Your task to perform on an android device: Search for Mexican restaurants on Maps Image 0: 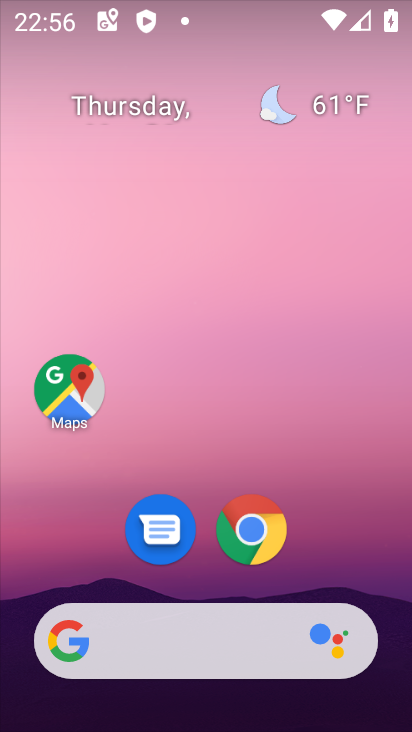
Step 0: drag from (348, 569) to (350, 58)
Your task to perform on an android device: Search for Mexican restaurants on Maps Image 1: 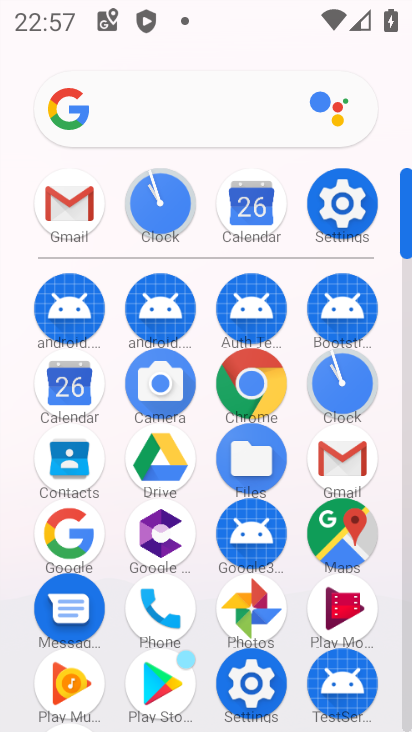
Step 1: click (336, 542)
Your task to perform on an android device: Search for Mexican restaurants on Maps Image 2: 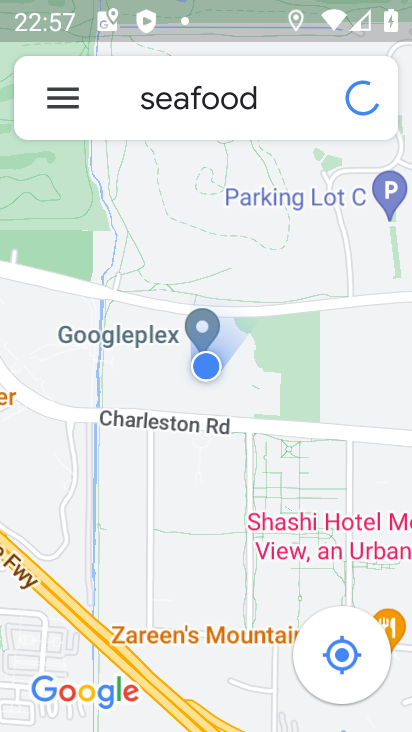
Step 2: click (253, 99)
Your task to perform on an android device: Search for Mexican restaurants on Maps Image 3: 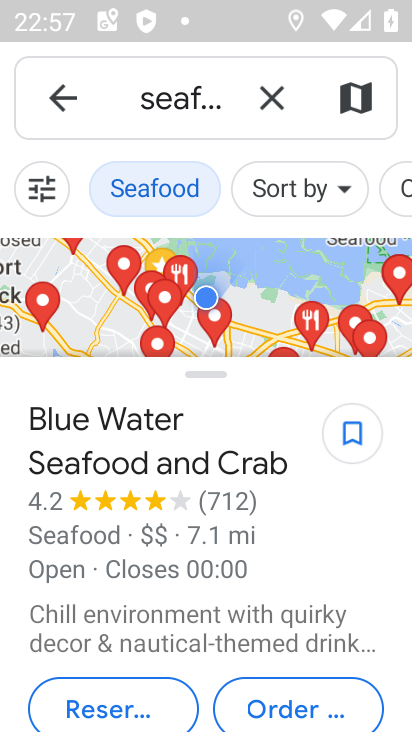
Step 3: click (264, 107)
Your task to perform on an android device: Search for Mexican restaurants on Maps Image 4: 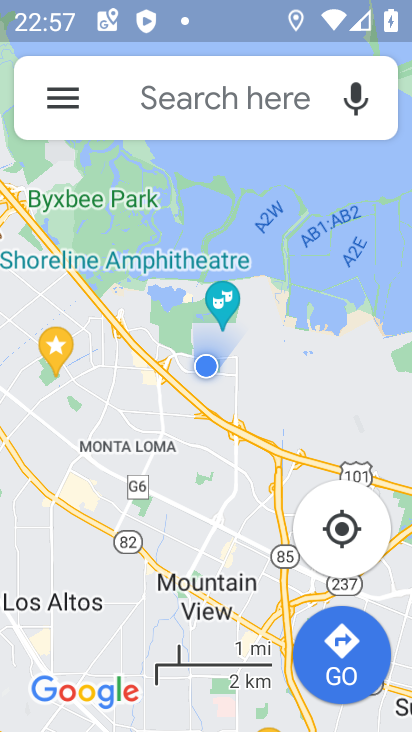
Step 4: click (264, 107)
Your task to perform on an android device: Search for Mexican restaurants on Maps Image 5: 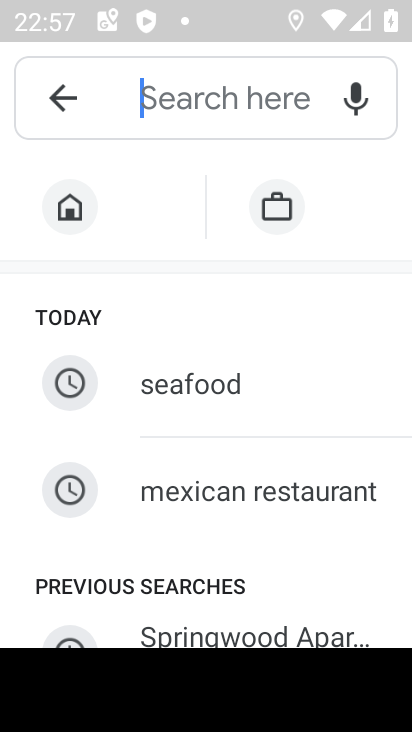
Step 5: click (263, 481)
Your task to perform on an android device: Search for Mexican restaurants on Maps Image 6: 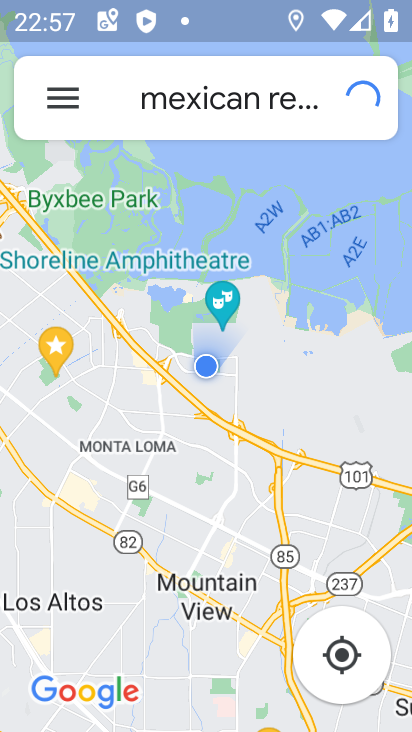
Step 6: task complete